Your task to perform on an android device: Check the news Image 0: 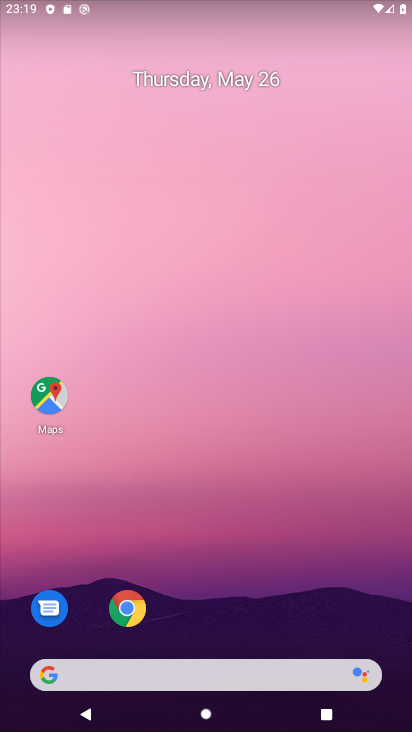
Step 0: click (128, 602)
Your task to perform on an android device: Check the news Image 1: 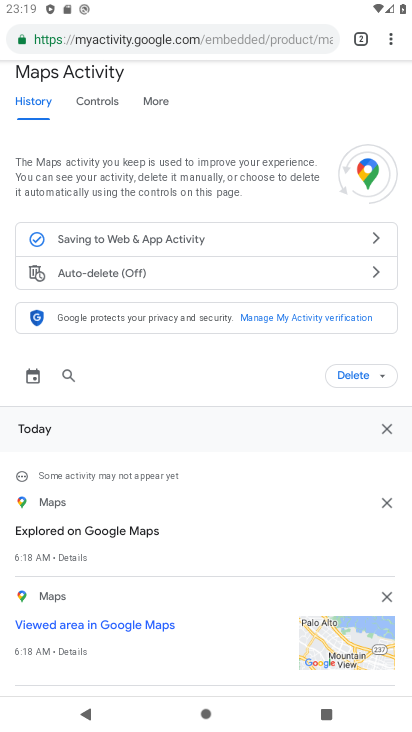
Step 1: click (233, 43)
Your task to perform on an android device: Check the news Image 2: 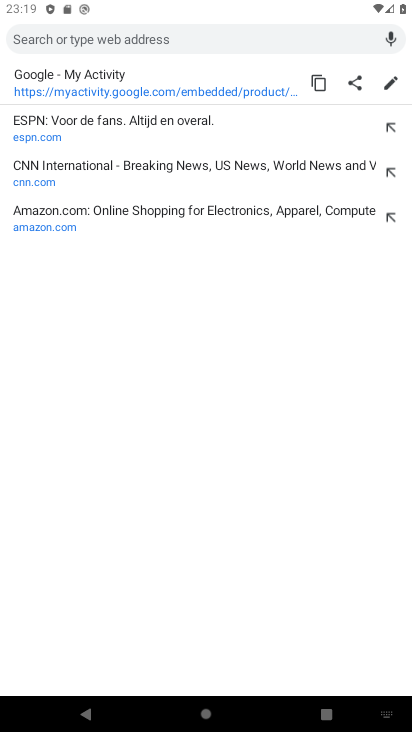
Step 2: type "news"
Your task to perform on an android device: Check the news Image 3: 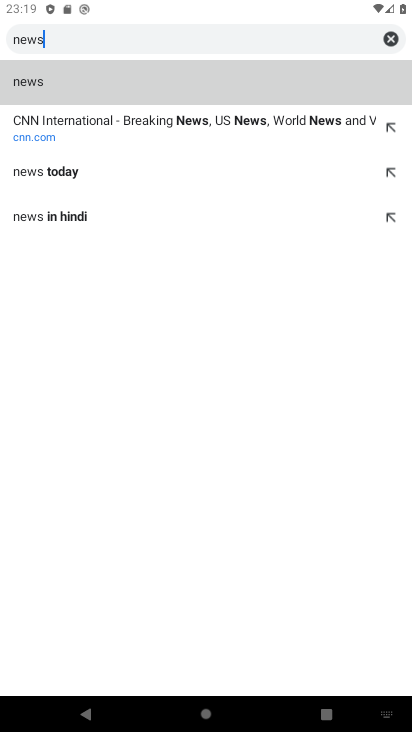
Step 3: click (32, 77)
Your task to perform on an android device: Check the news Image 4: 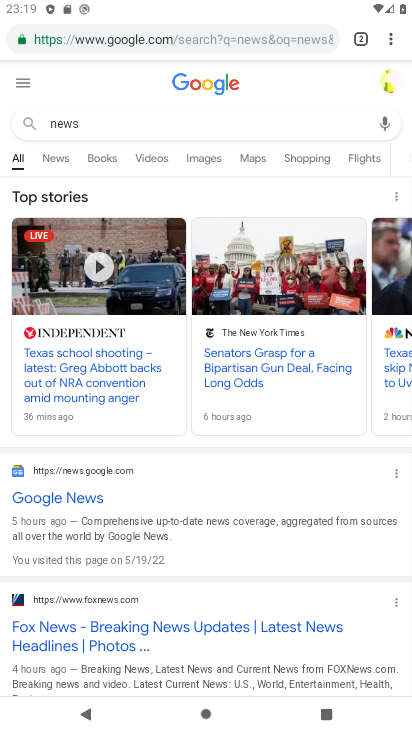
Step 4: click (58, 164)
Your task to perform on an android device: Check the news Image 5: 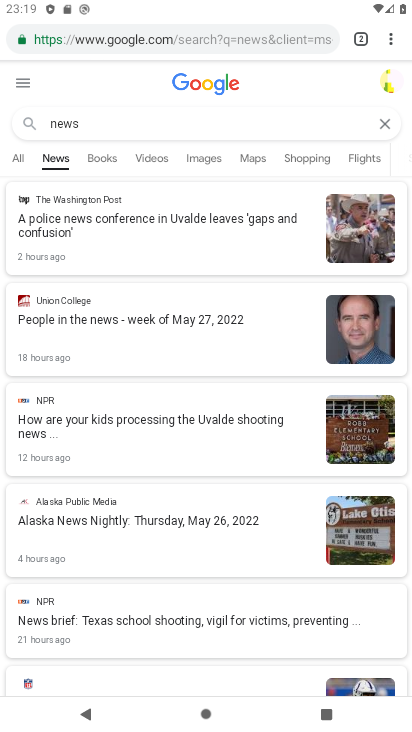
Step 5: task complete